Your task to perform on an android device: turn on the 12-hour format for clock Image 0: 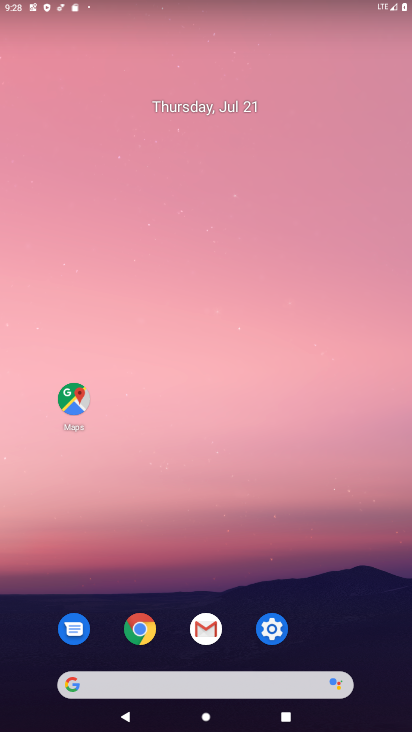
Step 0: drag from (248, 688) to (346, 64)
Your task to perform on an android device: turn on the 12-hour format for clock Image 1: 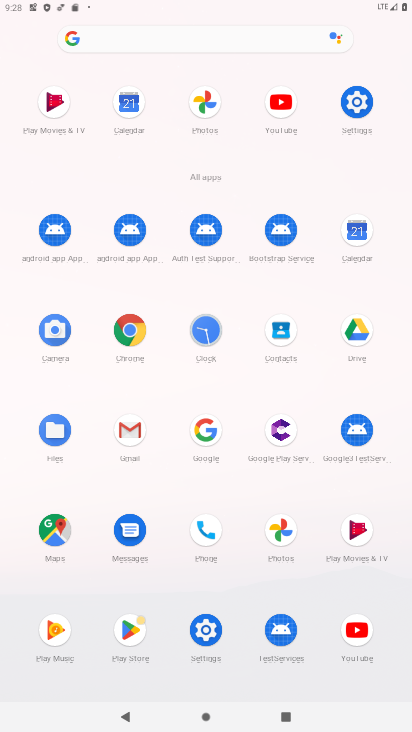
Step 1: click (218, 328)
Your task to perform on an android device: turn on the 12-hour format for clock Image 2: 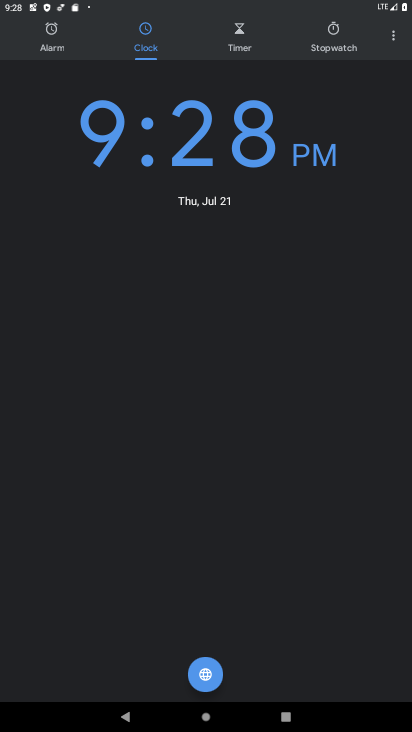
Step 2: click (386, 45)
Your task to perform on an android device: turn on the 12-hour format for clock Image 3: 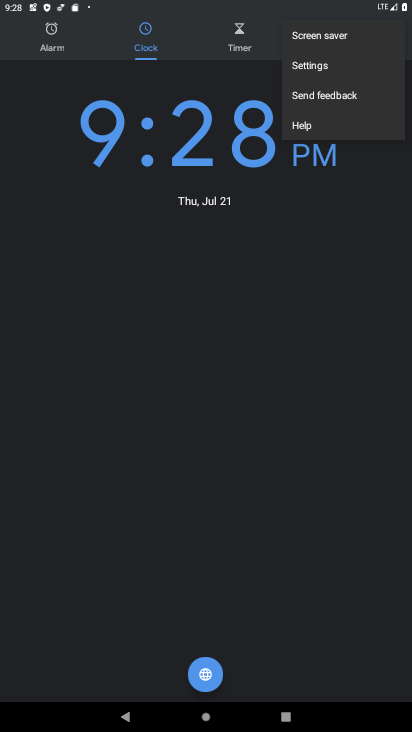
Step 3: click (308, 72)
Your task to perform on an android device: turn on the 12-hour format for clock Image 4: 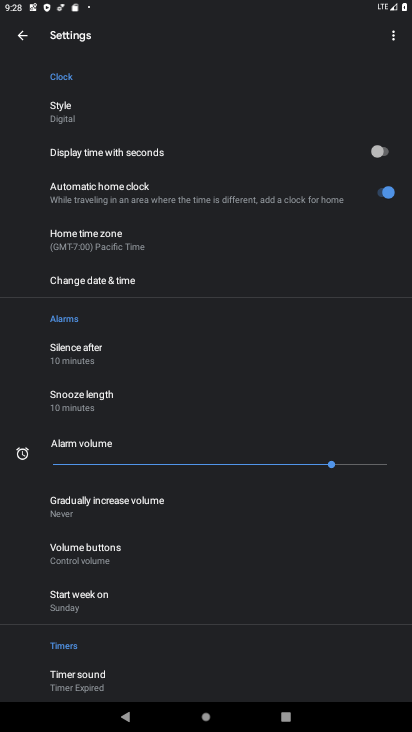
Step 4: drag from (115, 671) to (121, 630)
Your task to perform on an android device: turn on the 12-hour format for clock Image 5: 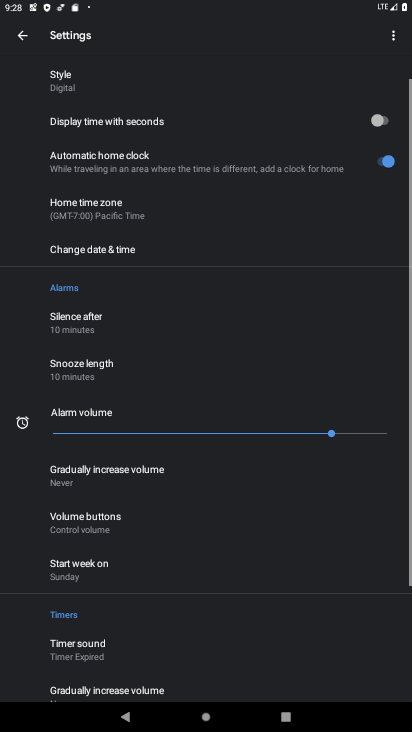
Step 5: click (112, 260)
Your task to perform on an android device: turn on the 12-hour format for clock Image 6: 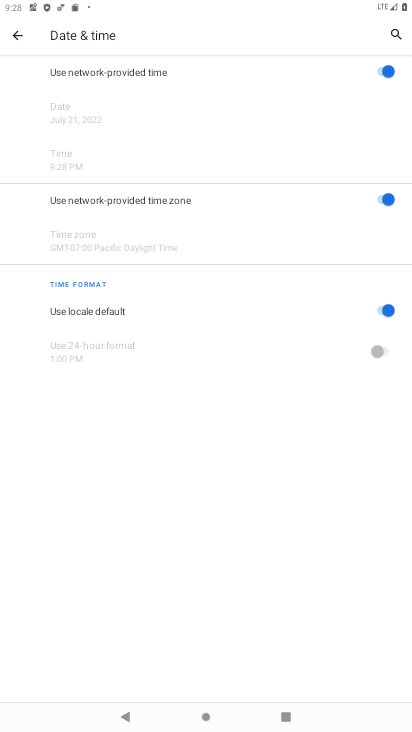
Step 6: click (381, 306)
Your task to perform on an android device: turn on the 12-hour format for clock Image 7: 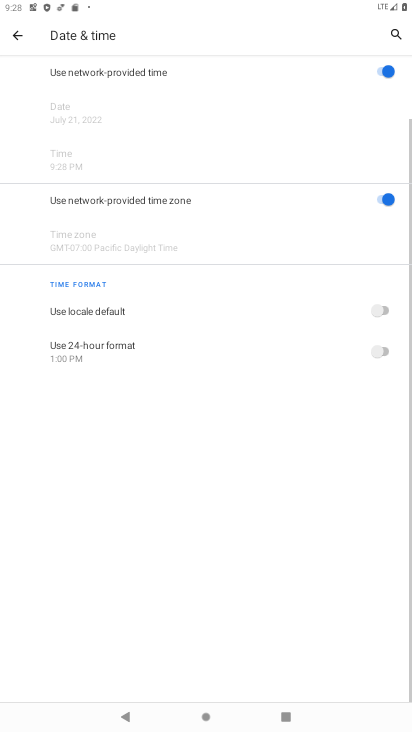
Step 7: click (382, 359)
Your task to perform on an android device: turn on the 12-hour format for clock Image 8: 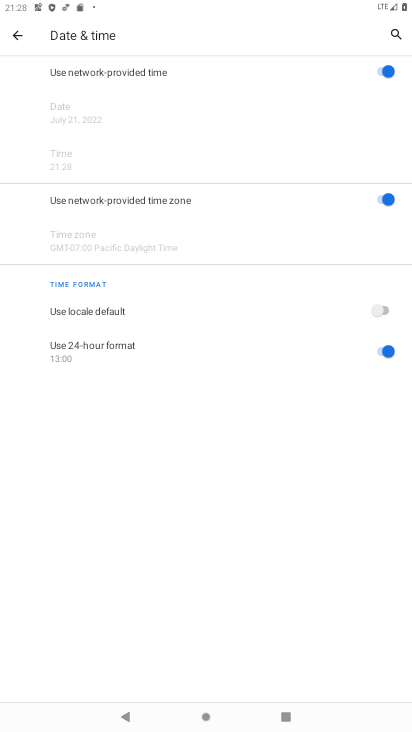
Step 8: click (387, 348)
Your task to perform on an android device: turn on the 12-hour format for clock Image 9: 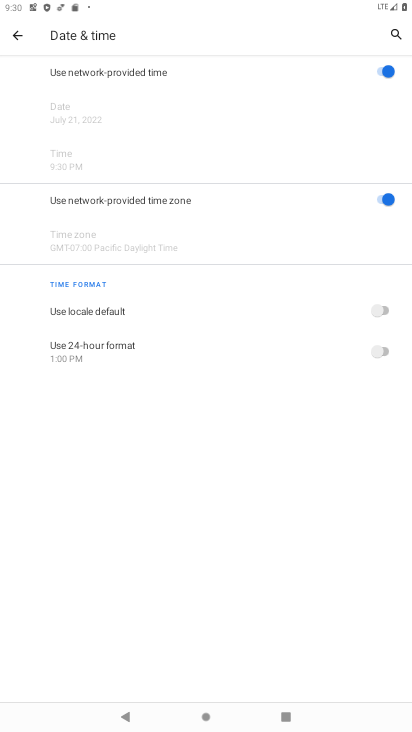
Step 9: task complete